Your task to perform on an android device: Open calendar and show me the third week of next month Image 0: 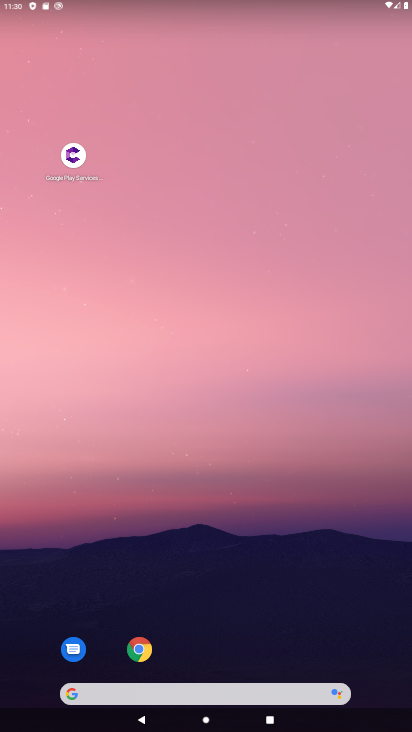
Step 0: drag from (267, 601) to (409, 226)
Your task to perform on an android device: Open calendar and show me the third week of next month Image 1: 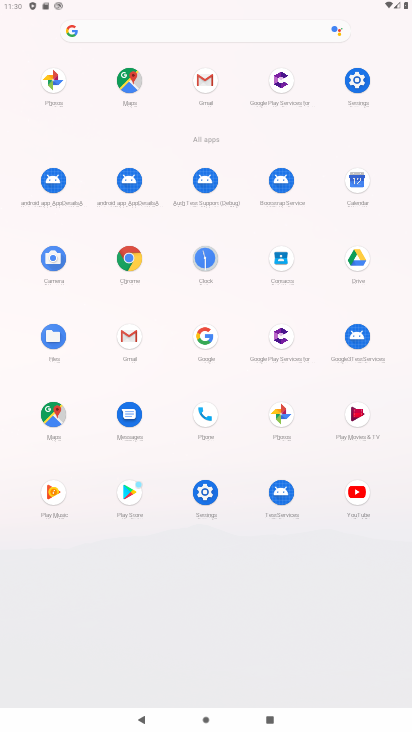
Step 1: click (359, 177)
Your task to perform on an android device: Open calendar and show me the third week of next month Image 2: 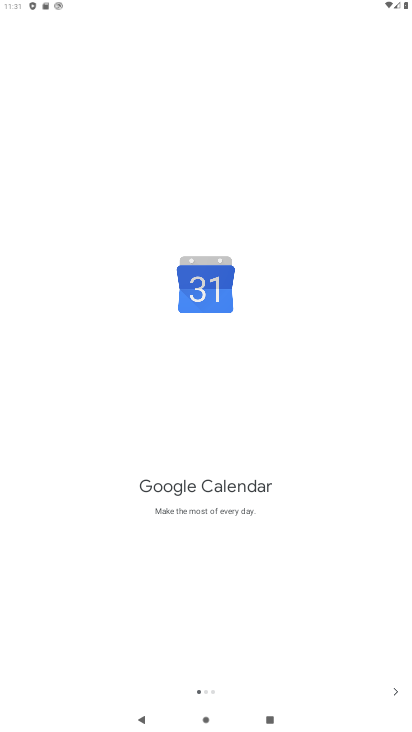
Step 2: click (389, 688)
Your task to perform on an android device: Open calendar and show me the third week of next month Image 3: 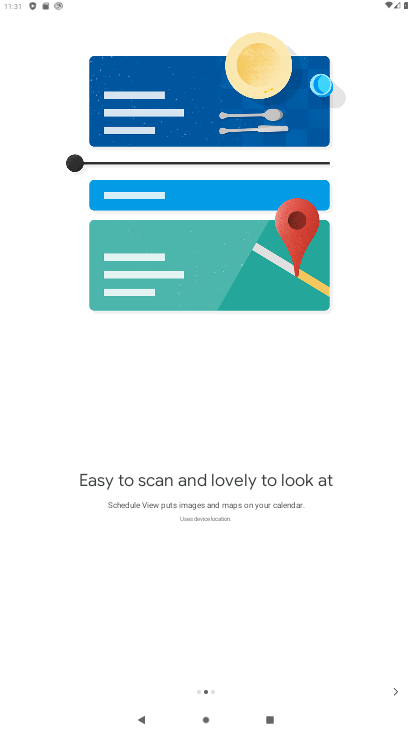
Step 3: click (389, 688)
Your task to perform on an android device: Open calendar and show me the third week of next month Image 4: 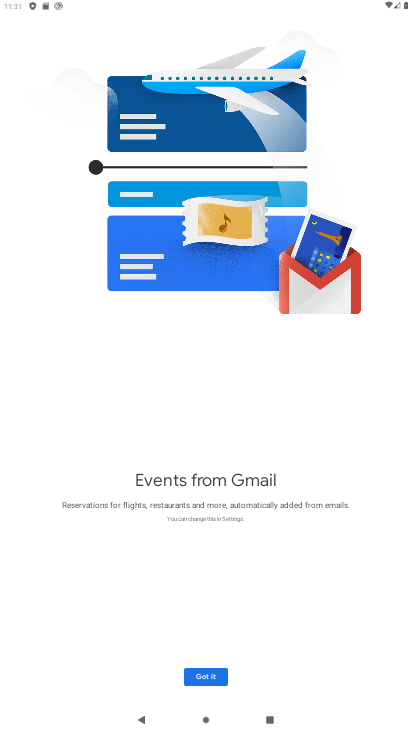
Step 4: click (212, 675)
Your task to perform on an android device: Open calendar and show me the third week of next month Image 5: 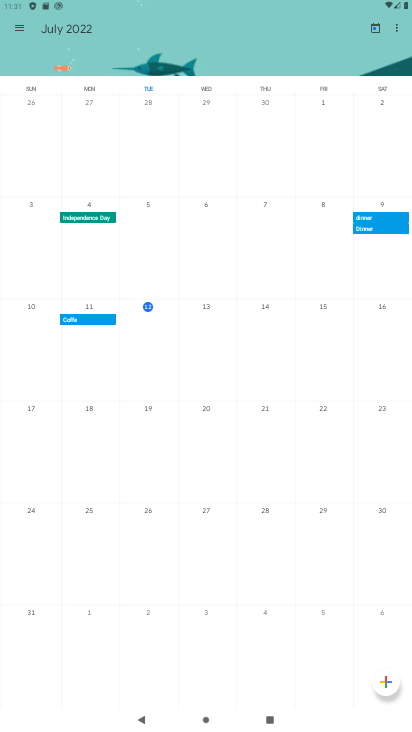
Step 5: drag from (379, 337) to (10, 332)
Your task to perform on an android device: Open calendar and show me the third week of next month Image 6: 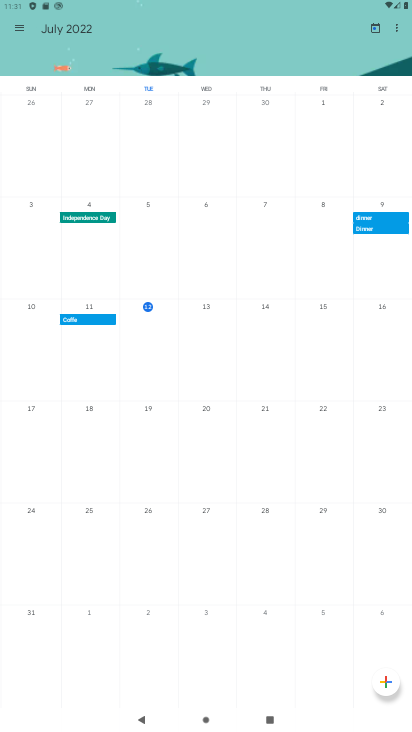
Step 6: drag from (389, 351) to (24, 282)
Your task to perform on an android device: Open calendar and show me the third week of next month Image 7: 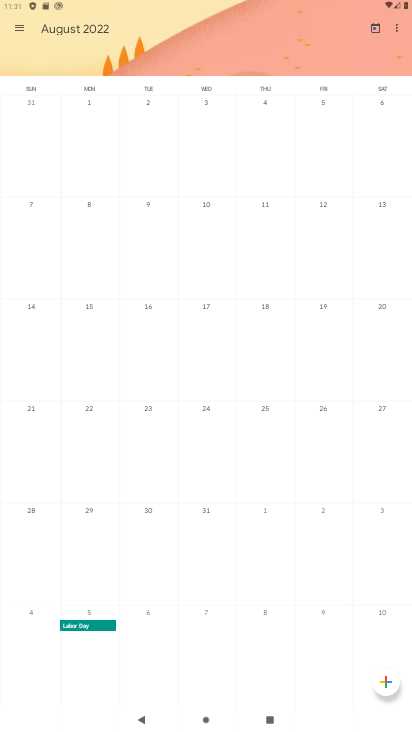
Step 7: click (31, 313)
Your task to perform on an android device: Open calendar and show me the third week of next month Image 8: 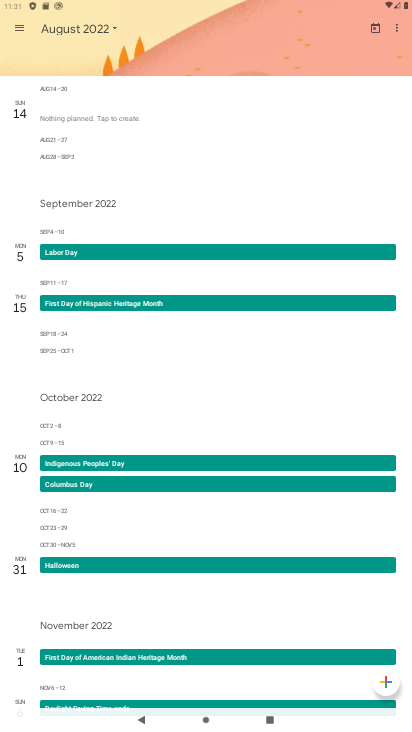
Step 8: task complete